Your task to perform on an android device: Open the stopwatch Image 0: 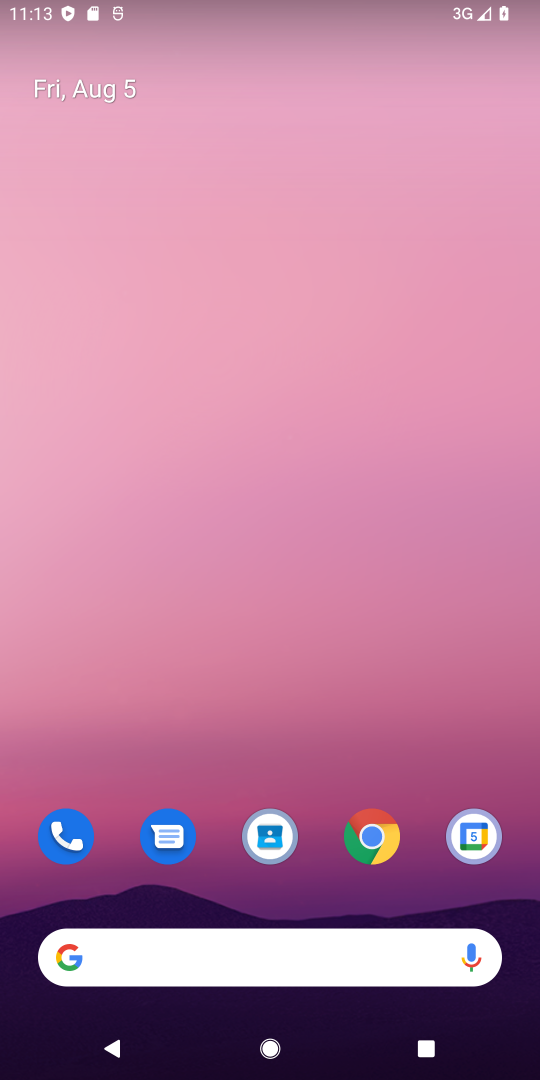
Step 0: drag from (319, 872) to (363, 154)
Your task to perform on an android device: Open the stopwatch Image 1: 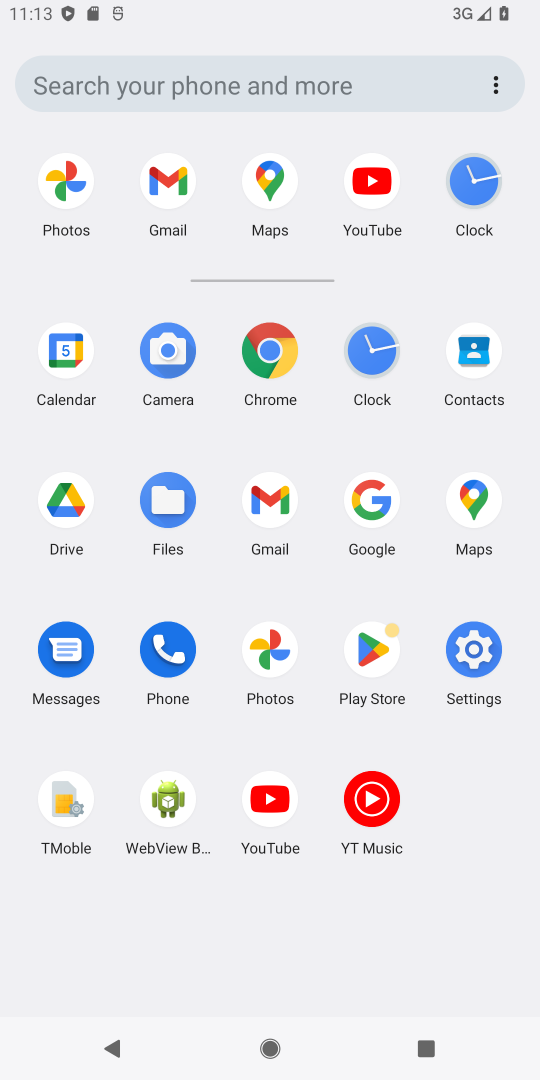
Step 1: click (365, 354)
Your task to perform on an android device: Open the stopwatch Image 2: 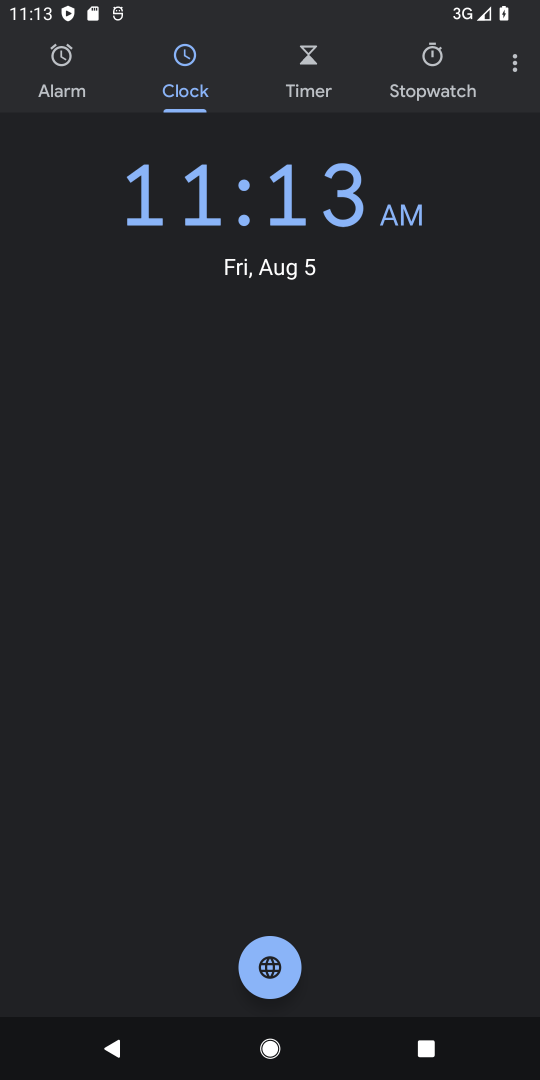
Step 2: click (423, 59)
Your task to perform on an android device: Open the stopwatch Image 3: 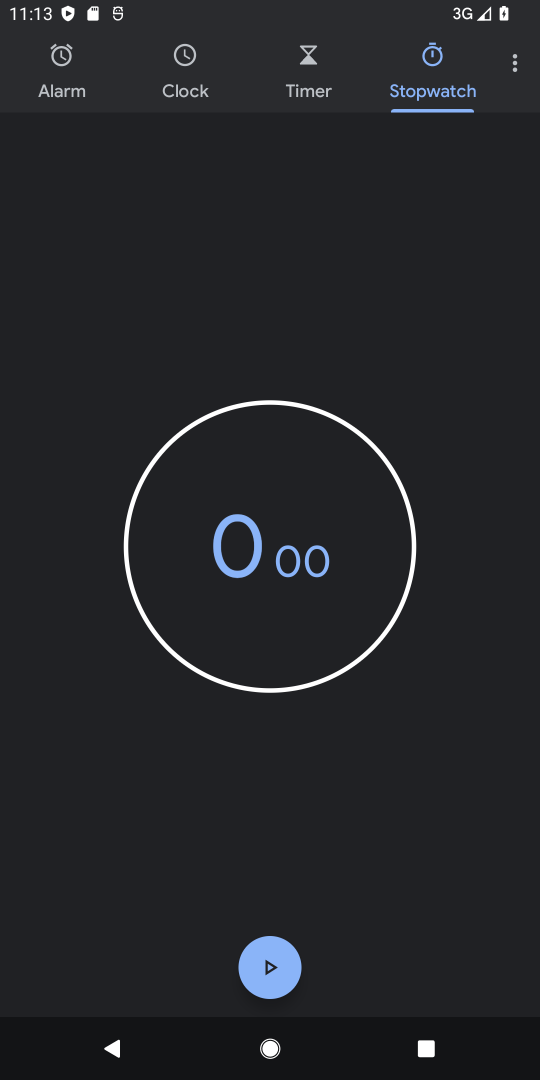
Step 3: task complete